Your task to perform on an android device: turn on javascript in the chrome app Image 0: 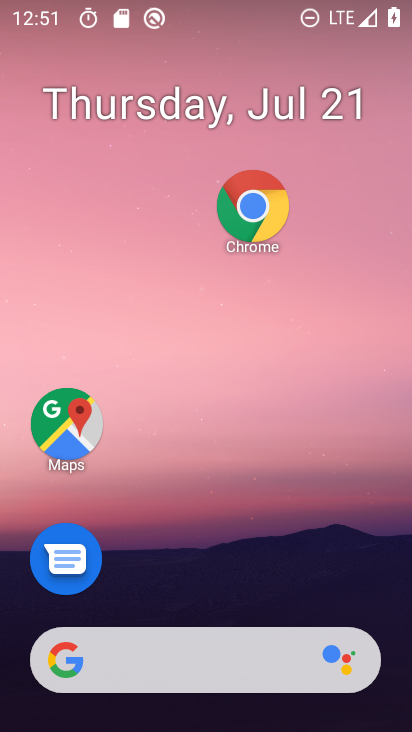
Step 0: drag from (182, 552) to (237, 39)
Your task to perform on an android device: turn on javascript in the chrome app Image 1: 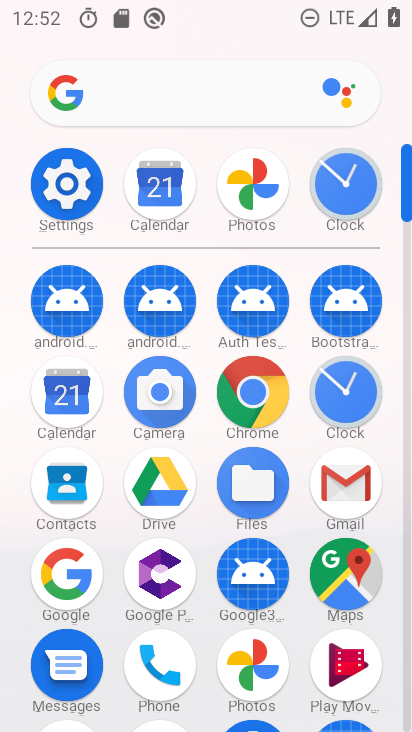
Step 1: click (256, 423)
Your task to perform on an android device: turn on javascript in the chrome app Image 2: 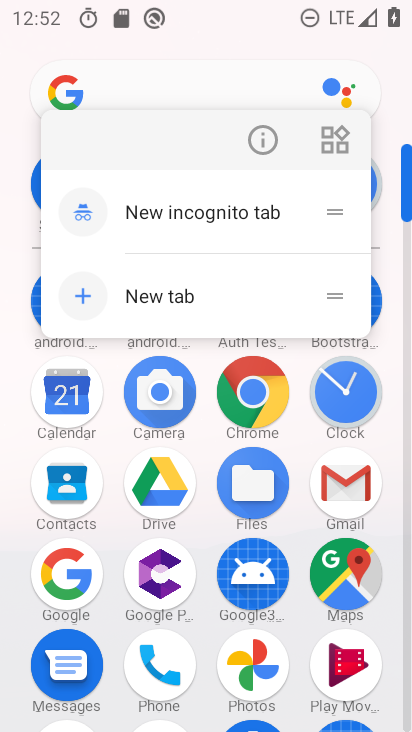
Step 2: click (258, 409)
Your task to perform on an android device: turn on javascript in the chrome app Image 3: 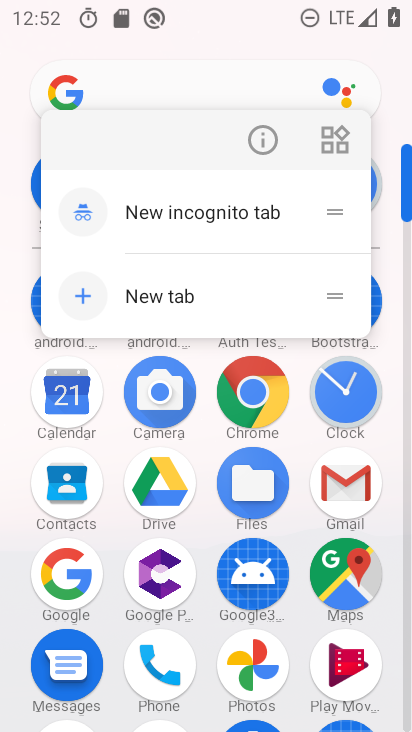
Step 3: click (267, 398)
Your task to perform on an android device: turn on javascript in the chrome app Image 4: 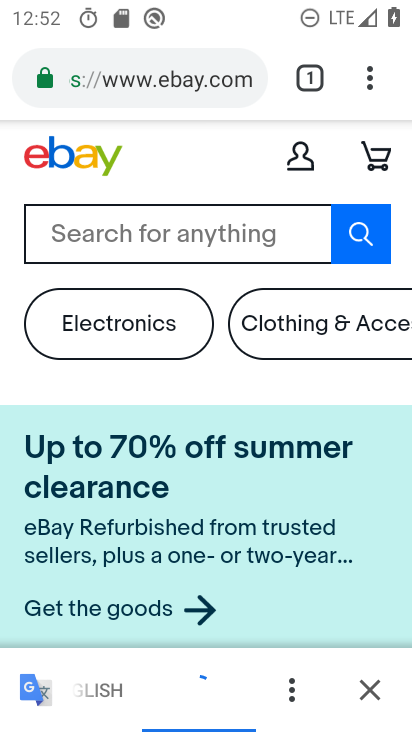
Step 4: click (375, 80)
Your task to perform on an android device: turn on javascript in the chrome app Image 5: 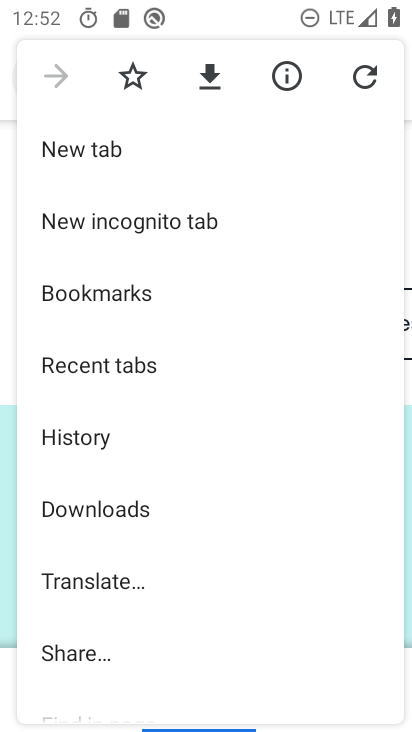
Step 5: drag from (92, 601) to (179, 219)
Your task to perform on an android device: turn on javascript in the chrome app Image 6: 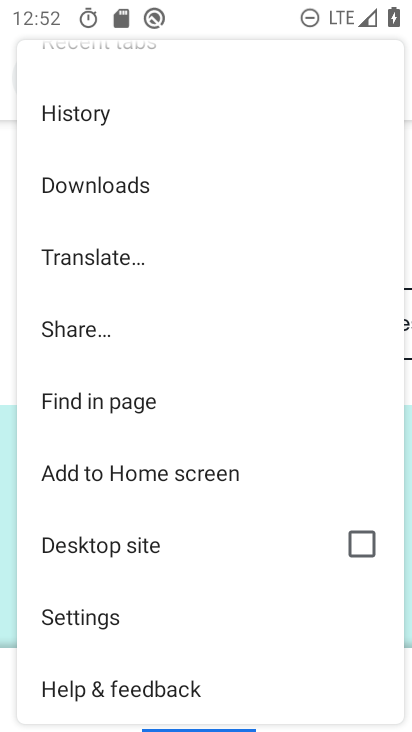
Step 6: click (108, 624)
Your task to perform on an android device: turn on javascript in the chrome app Image 7: 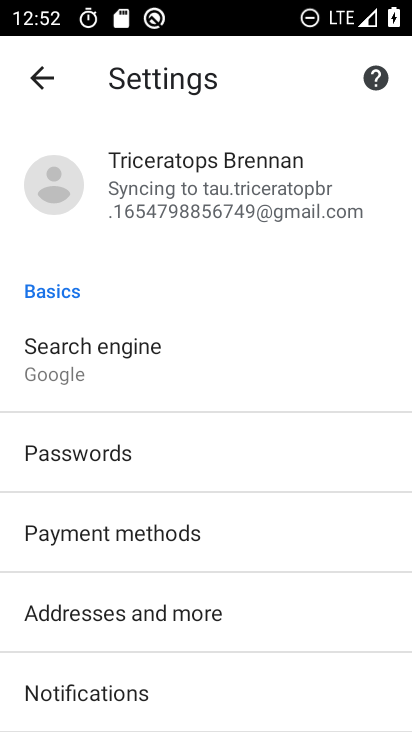
Step 7: drag from (110, 628) to (110, 444)
Your task to perform on an android device: turn on javascript in the chrome app Image 8: 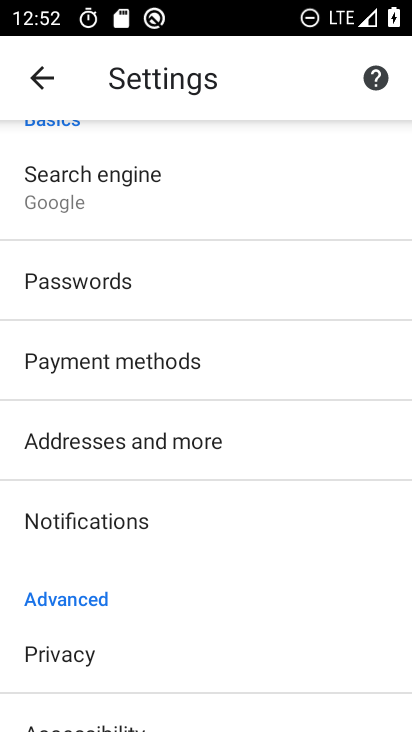
Step 8: drag from (144, 567) to (239, 229)
Your task to perform on an android device: turn on javascript in the chrome app Image 9: 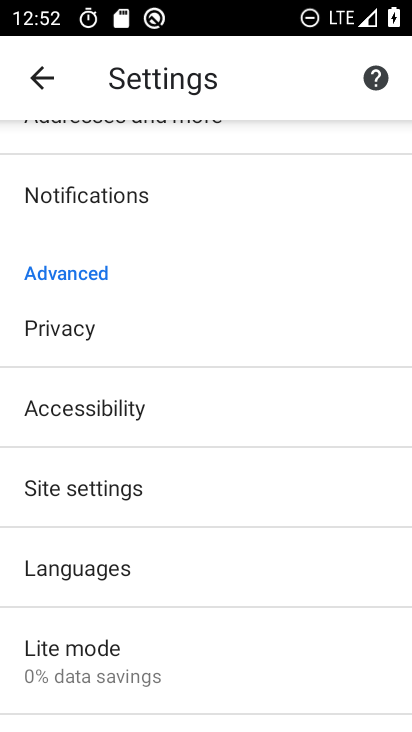
Step 9: click (129, 484)
Your task to perform on an android device: turn on javascript in the chrome app Image 10: 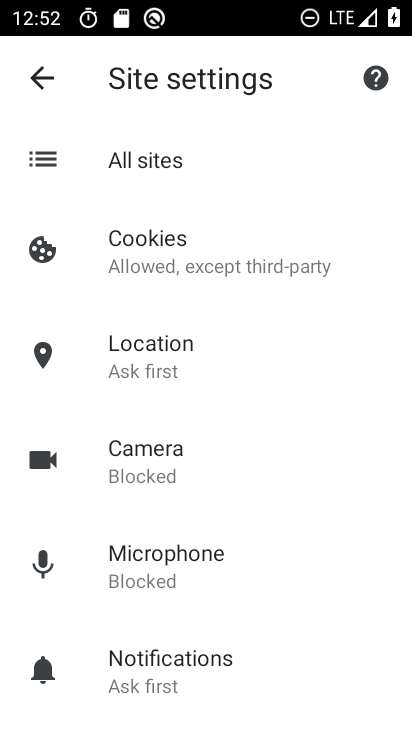
Step 10: drag from (160, 571) to (184, 237)
Your task to perform on an android device: turn on javascript in the chrome app Image 11: 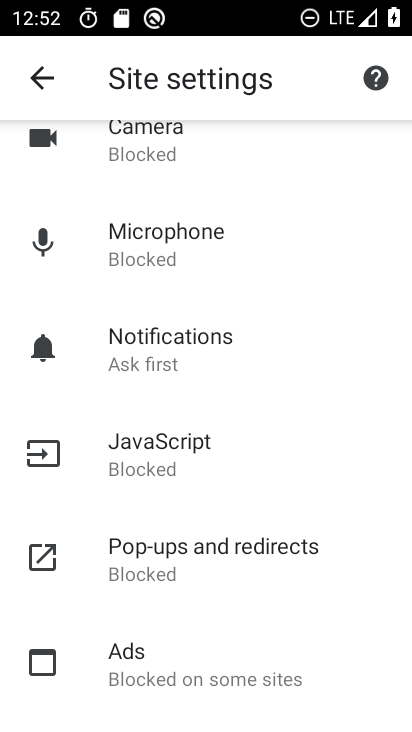
Step 11: click (159, 479)
Your task to perform on an android device: turn on javascript in the chrome app Image 12: 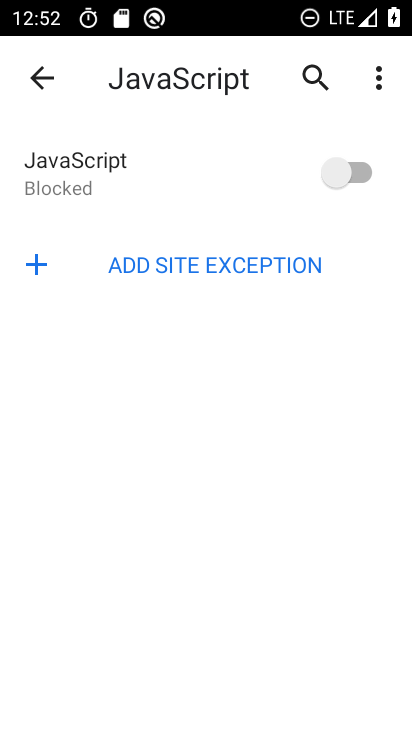
Step 12: click (368, 144)
Your task to perform on an android device: turn on javascript in the chrome app Image 13: 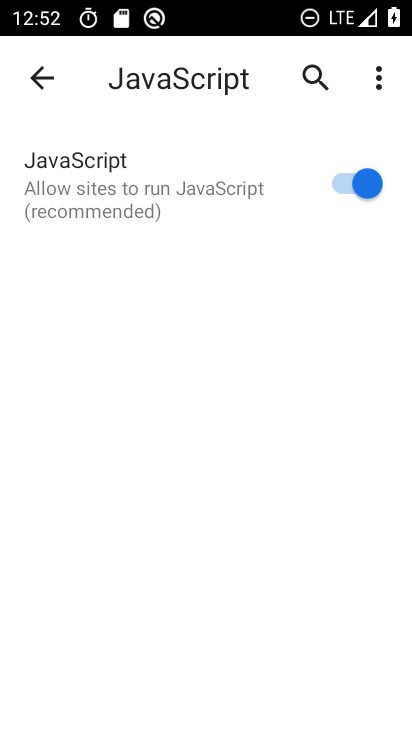
Step 13: task complete